Your task to perform on an android device: Go to Amazon Image 0: 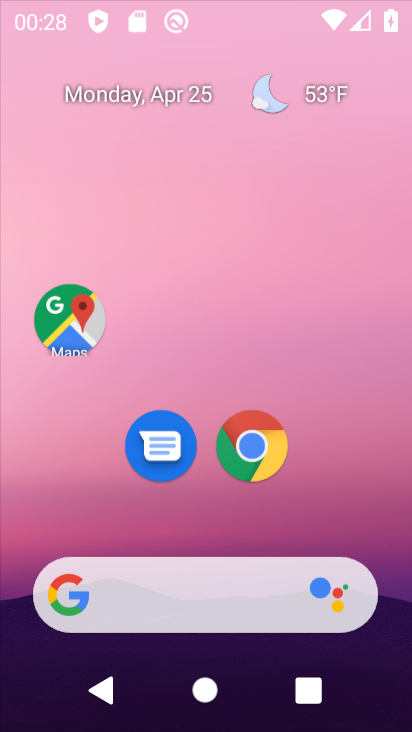
Step 0: click (351, 298)
Your task to perform on an android device: Go to Amazon Image 1: 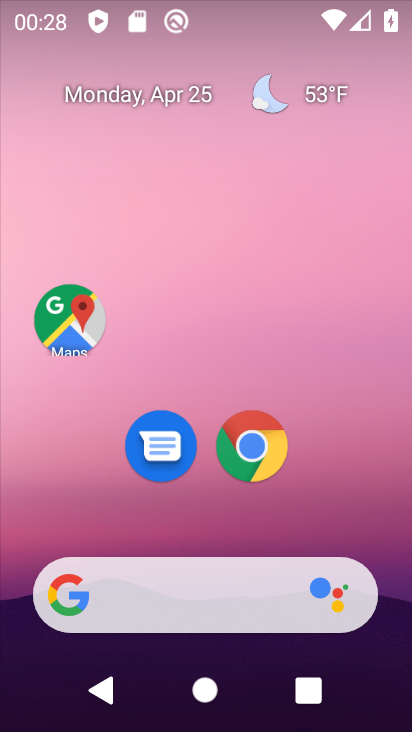
Step 1: click (268, 460)
Your task to perform on an android device: Go to Amazon Image 2: 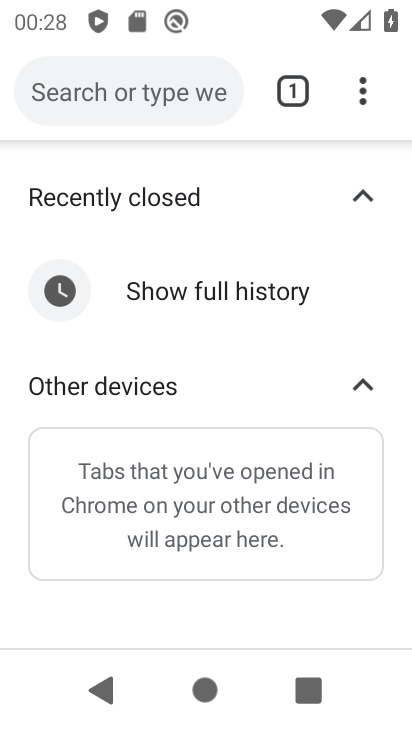
Step 2: click (364, 108)
Your task to perform on an android device: Go to Amazon Image 3: 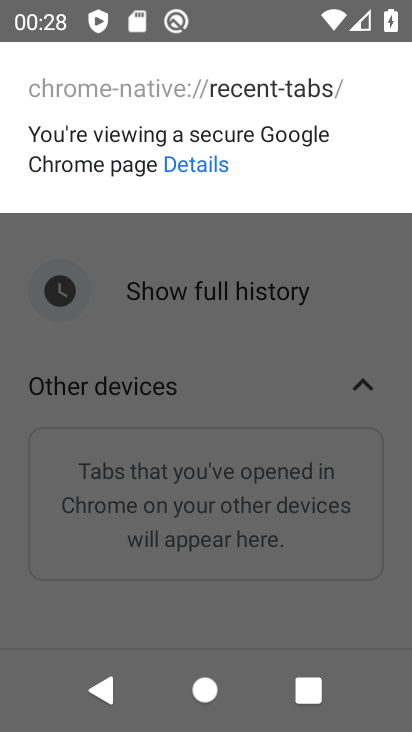
Step 3: click (198, 313)
Your task to perform on an android device: Go to Amazon Image 4: 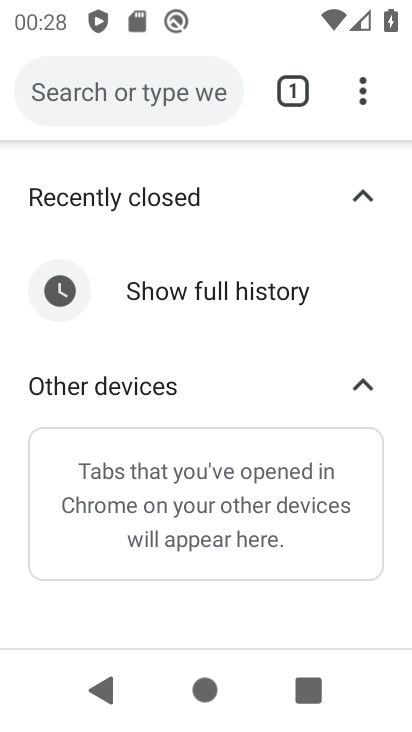
Step 4: click (156, 93)
Your task to perform on an android device: Go to Amazon Image 5: 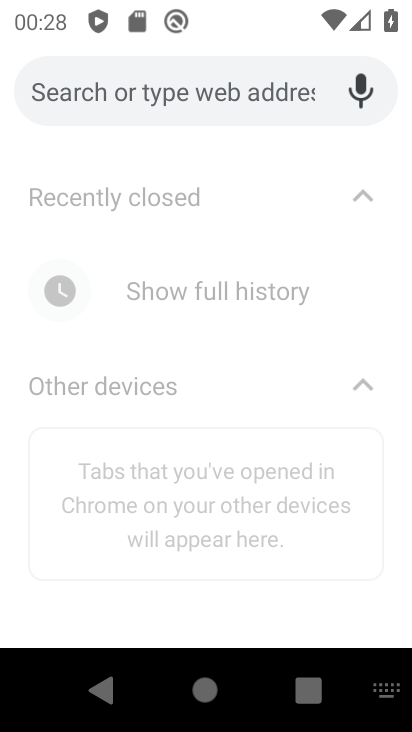
Step 5: type "Amazon"
Your task to perform on an android device: Go to Amazon Image 6: 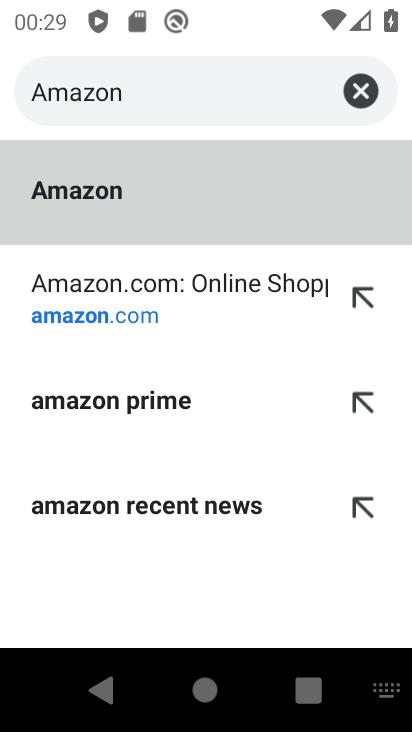
Step 6: click (200, 202)
Your task to perform on an android device: Go to Amazon Image 7: 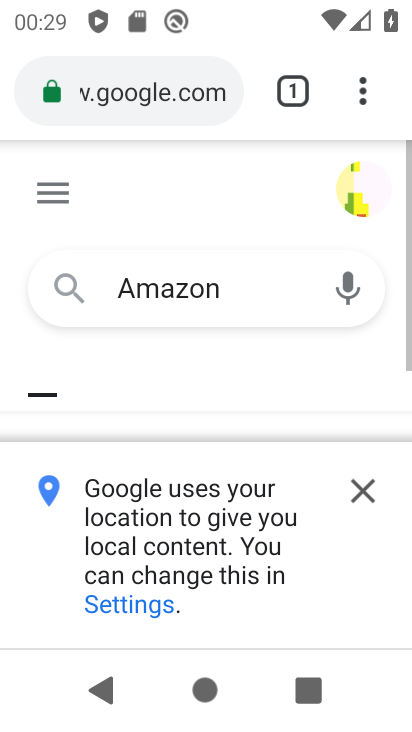
Step 7: click (357, 490)
Your task to perform on an android device: Go to Amazon Image 8: 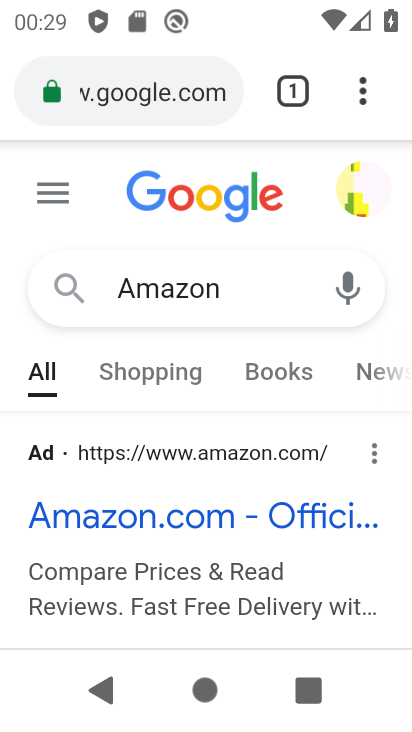
Step 8: task complete